Your task to perform on an android device: Find coffee shops on Maps Image 0: 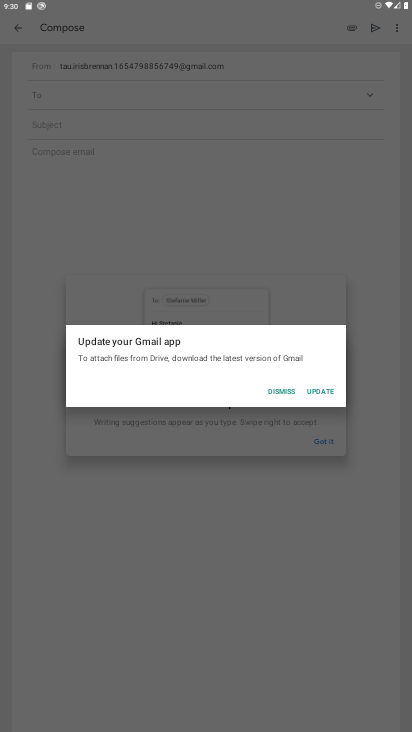
Step 0: press home button
Your task to perform on an android device: Find coffee shops on Maps Image 1: 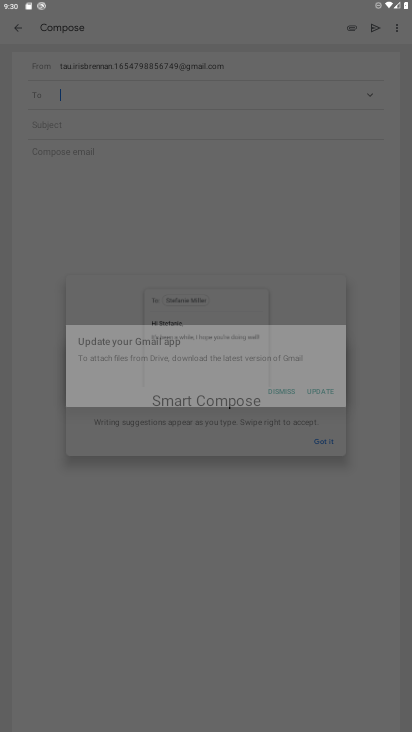
Step 1: press home button
Your task to perform on an android device: Find coffee shops on Maps Image 2: 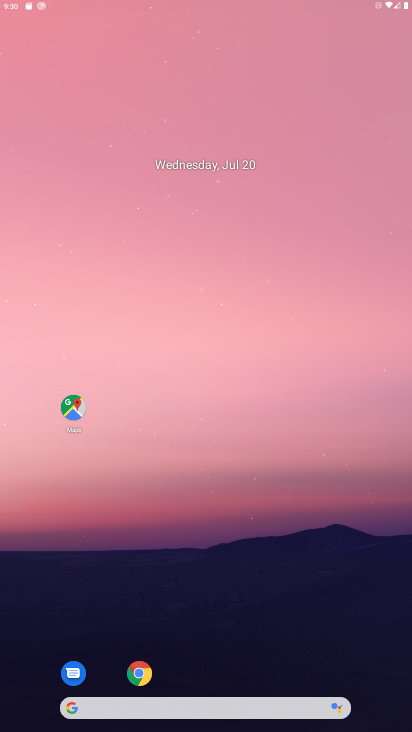
Step 2: drag from (305, 544) to (374, 144)
Your task to perform on an android device: Find coffee shops on Maps Image 3: 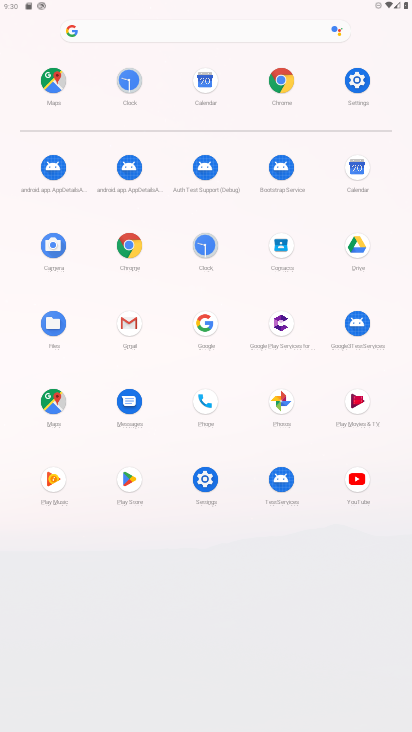
Step 3: click (55, 401)
Your task to perform on an android device: Find coffee shops on Maps Image 4: 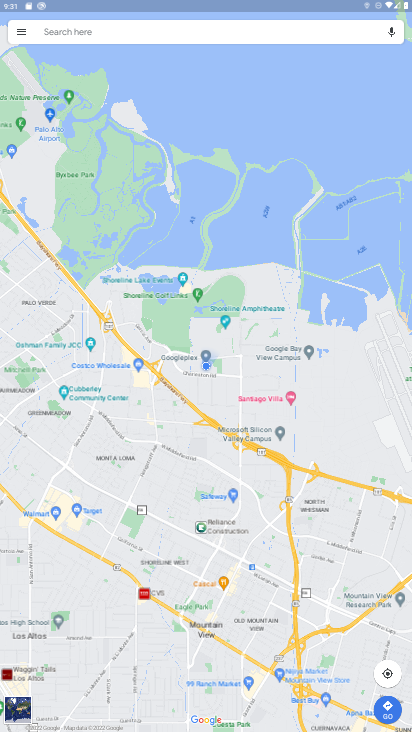
Step 4: click (109, 38)
Your task to perform on an android device: Find coffee shops on Maps Image 5: 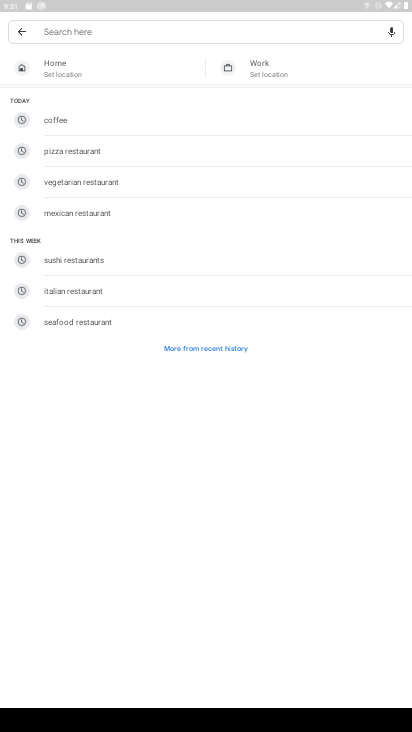
Step 5: click (39, 114)
Your task to perform on an android device: Find coffee shops on Maps Image 6: 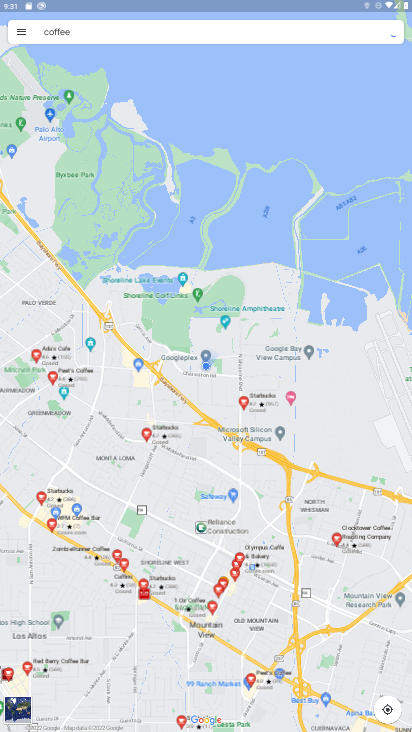
Step 6: task complete